Your task to perform on an android device: Is it going to rain this weekend? Image 0: 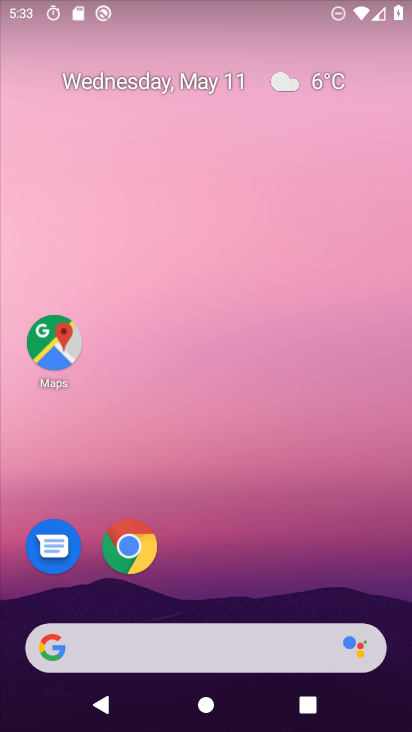
Step 0: drag from (205, 592) to (205, 315)
Your task to perform on an android device: Is it going to rain this weekend? Image 1: 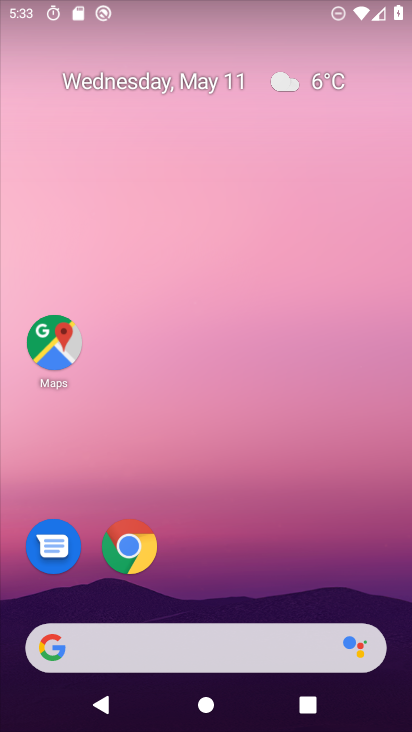
Step 1: drag from (236, 603) to (236, 211)
Your task to perform on an android device: Is it going to rain this weekend? Image 2: 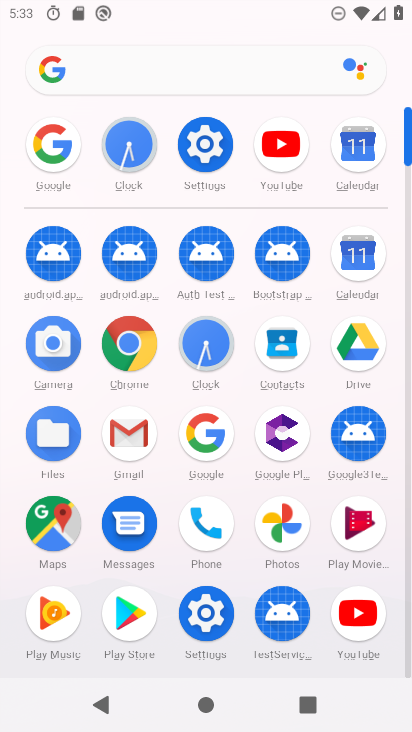
Step 2: click (210, 433)
Your task to perform on an android device: Is it going to rain this weekend? Image 3: 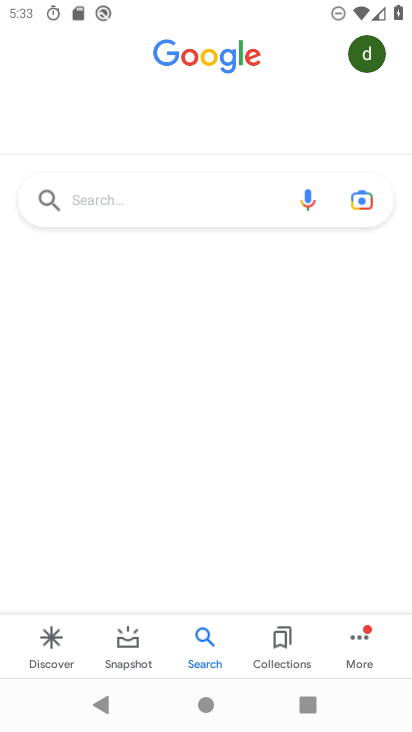
Step 3: click (122, 195)
Your task to perform on an android device: Is it going to rain this weekend? Image 4: 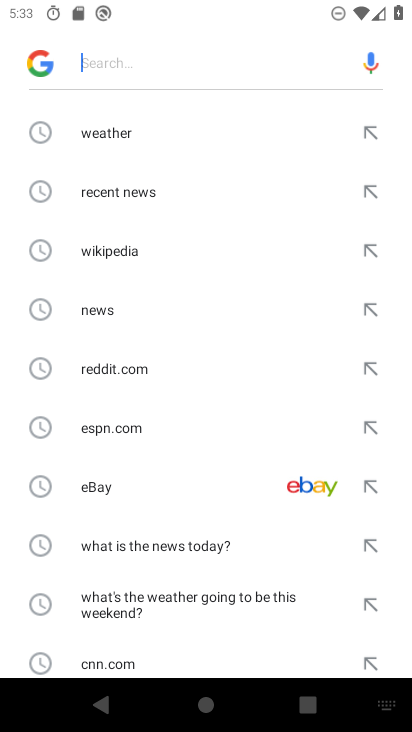
Step 4: drag from (184, 631) to (176, 329)
Your task to perform on an android device: Is it going to rain this weekend? Image 5: 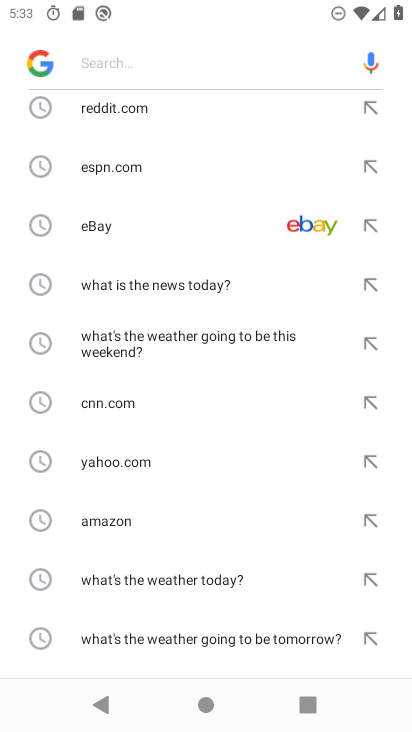
Step 5: drag from (199, 650) to (195, 346)
Your task to perform on an android device: Is it going to rain this weekend? Image 6: 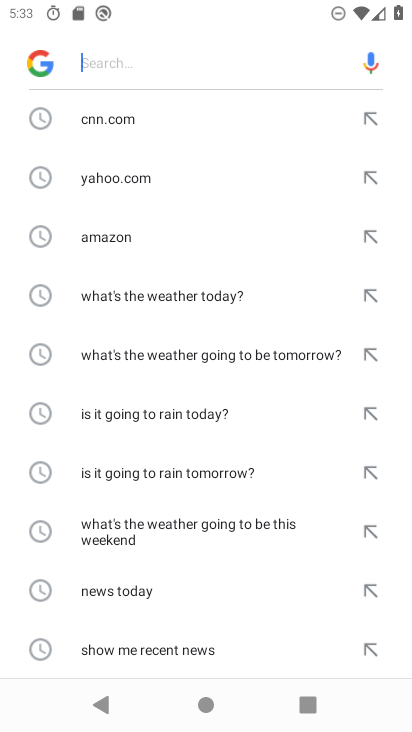
Step 6: drag from (186, 641) to (157, 392)
Your task to perform on an android device: Is it going to rain this weekend? Image 7: 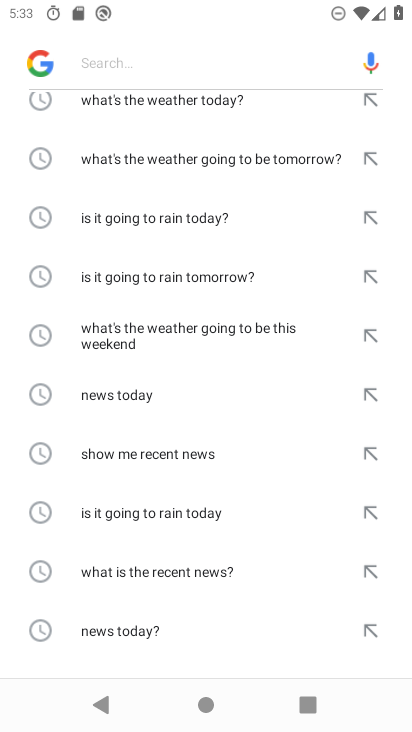
Step 7: drag from (191, 629) to (191, 359)
Your task to perform on an android device: Is it going to rain this weekend? Image 8: 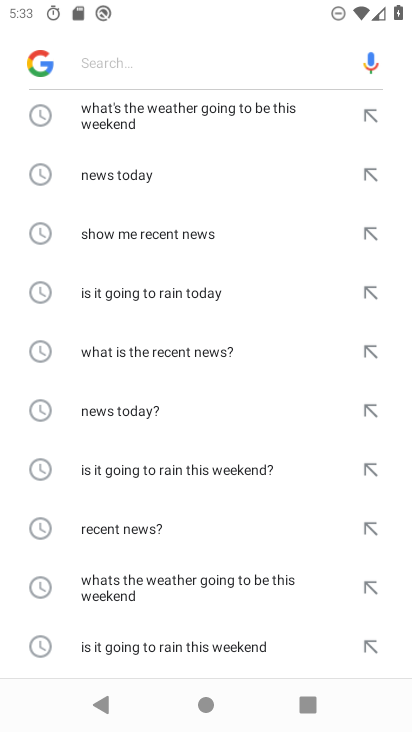
Step 8: click (209, 647)
Your task to perform on an android device: Is it going to rain this weekend? Image 9: 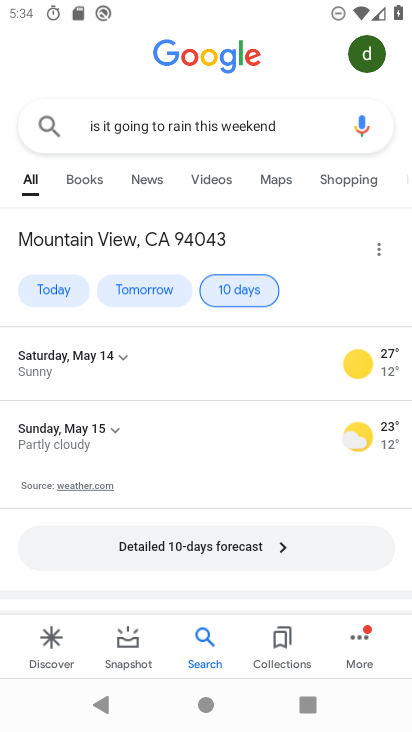
Step 9: click (235, 539)
Your task to perform on an android device: Is it going to rain this weekend? Image 10: 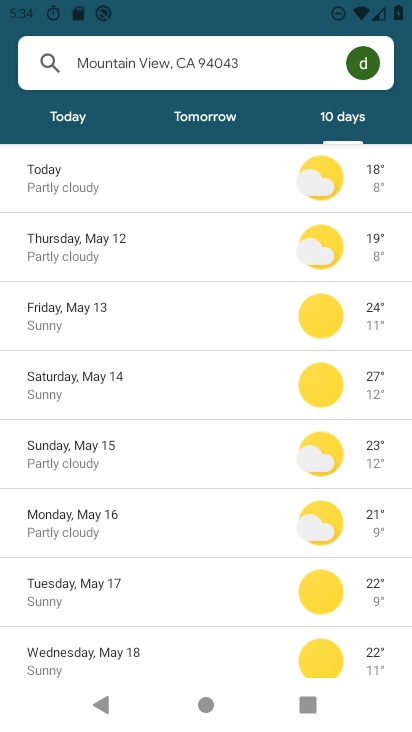
Step 10: task complete